Your task to perform on an android device: turn on the 24-hour format for clock Image 0: 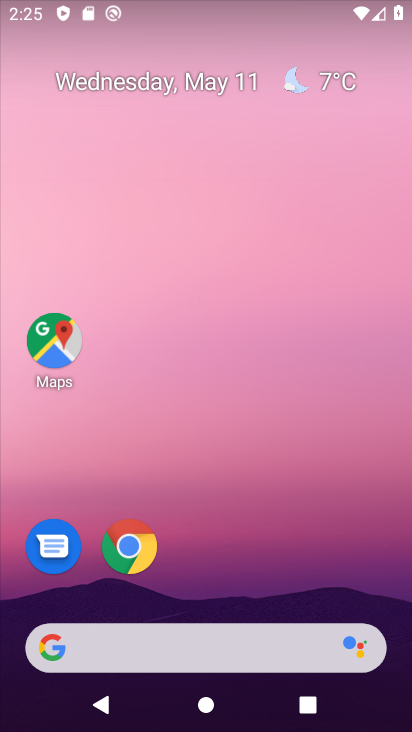
Step 0: drag from (241, 527) to (321, 120)
Your task to perform on an android device: turn on the 24-hour format for clock Image 1: 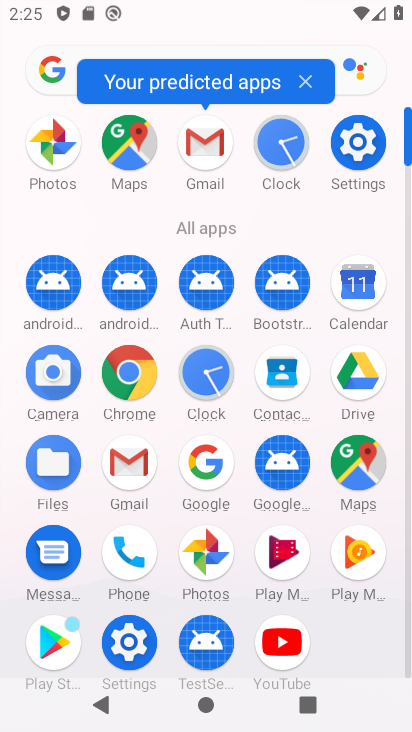
Step 1: click (209, 369)
Your task to perform on an android device: turn on the 24-hour format for clock Image 2: 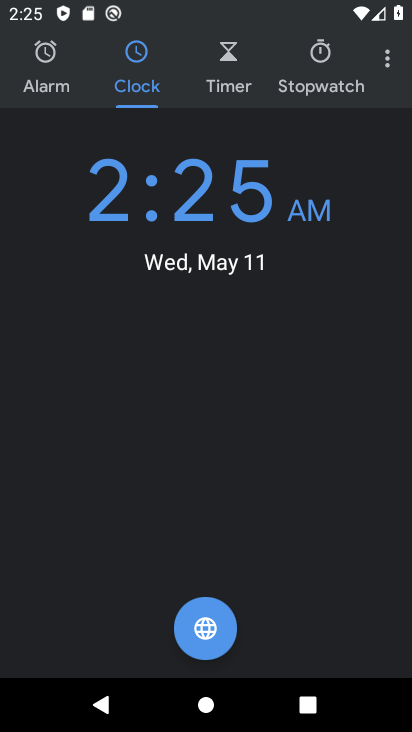
Step 2: click (383, 62)
Your task to perform on an android device: turn on the 24-hour format for clock Image 3: 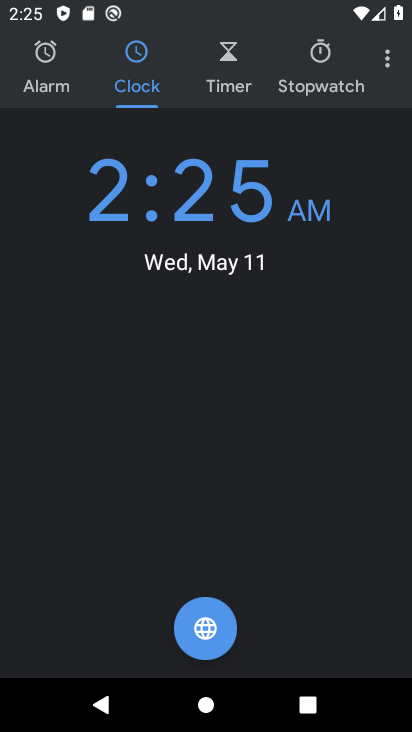
Step 3: click (387, 66)
Your task to perform on an android device: turn on the 24-hour format for clock Image 4: 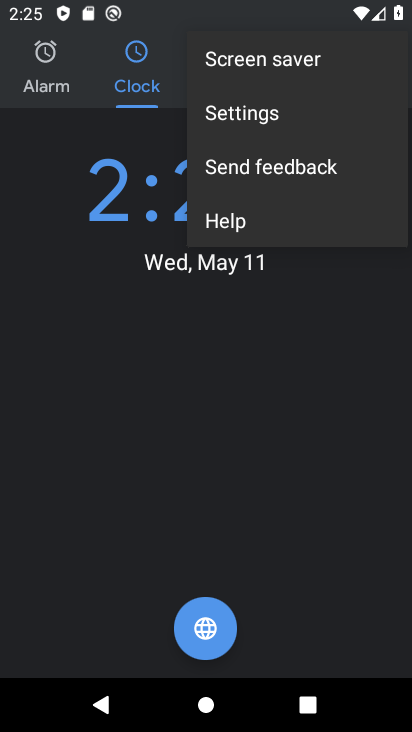
Step 4: click (268, 112)
Your task to perform on an android device: turn on the 24-hour format for clock Image 5: 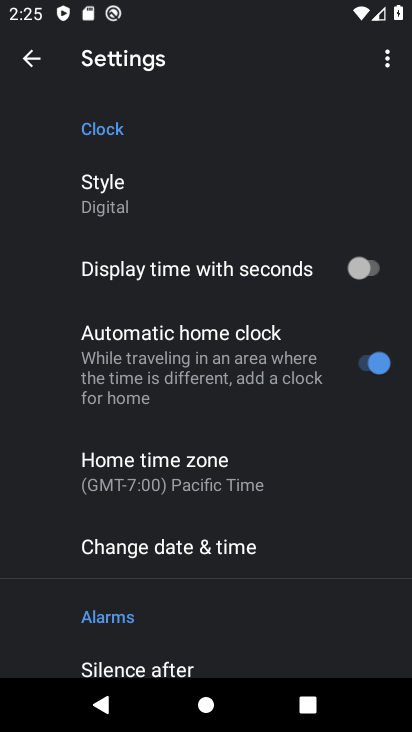
Step 5: click (221, 563)
Your task to perform on an android device: turn on the 24-hour format for clock Image 6: 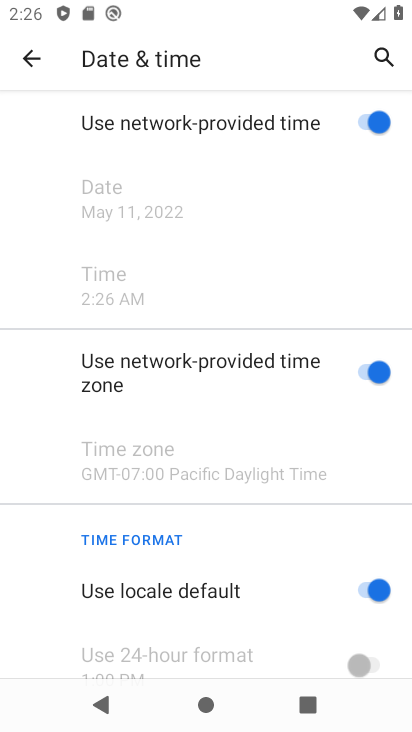
Step 6: click (374, 591)
Your task to perform on an android device: turn on the 24-hour format for clock Image 7: 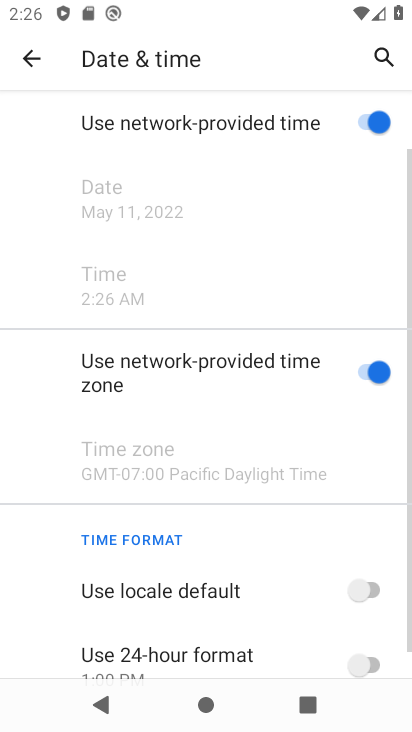
Step 7: click (366, 663)
Your task to perform on an android device: turn on the 24-hour format for clock Image 8: 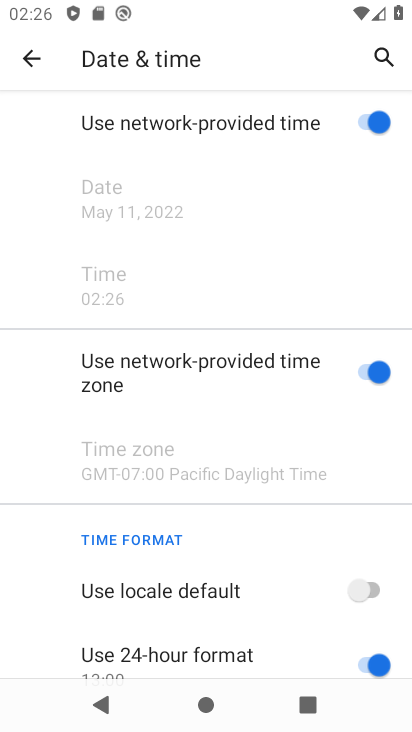
Step 8: task complete